Your task to perform on an android device: Search for pizza restaurants on Maps Image 0: 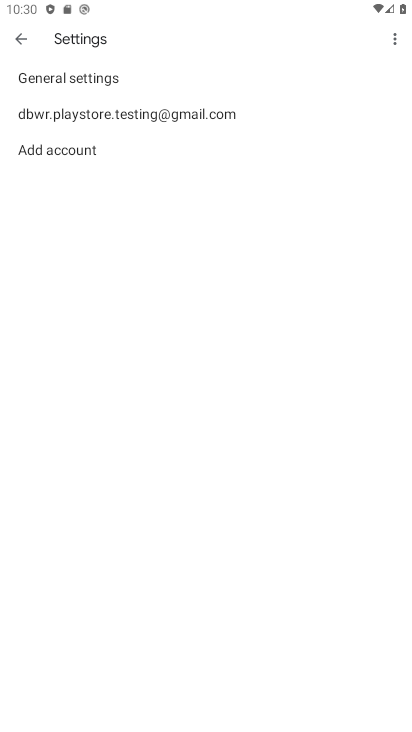
Step 0: press home button
Your task to perform on an android device: Search for pizza restaurants on Maps Image 1: 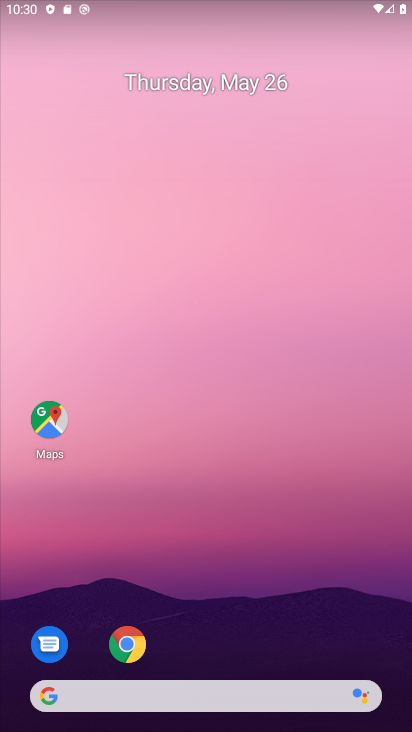
Step 1: click (40, 418)
Your task to perform on an android device: Search for pizza restaurants on Maps Image 2: 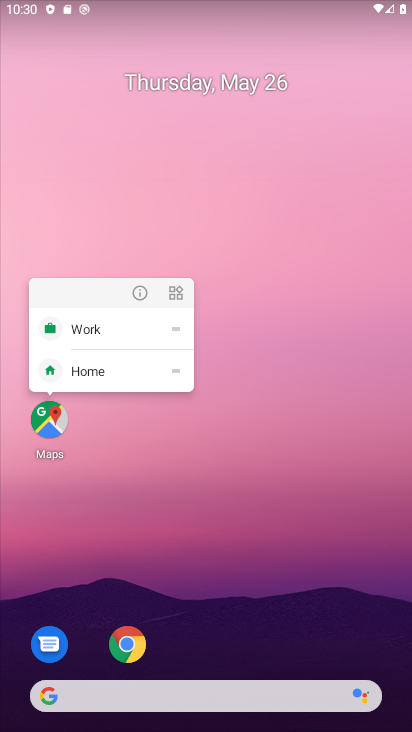
Step 2: click (49, 418)
Your task to perform on an android device: Search for pizza restaurants on Maps Image 3: 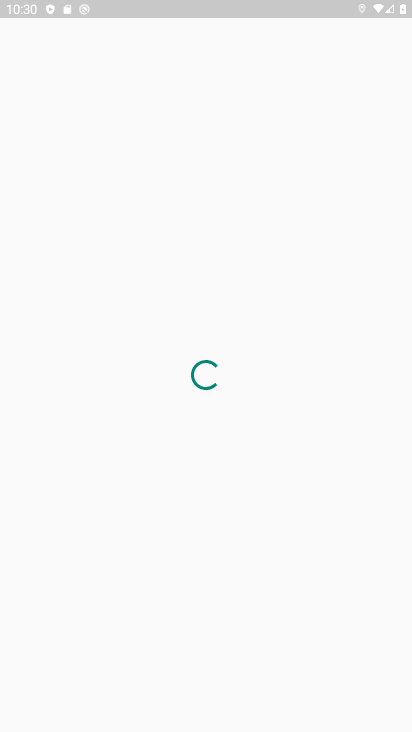
Step 3: click (129, 45)
Your task to perform on an android device: Search for pizza restaurants on Maps Image 4: 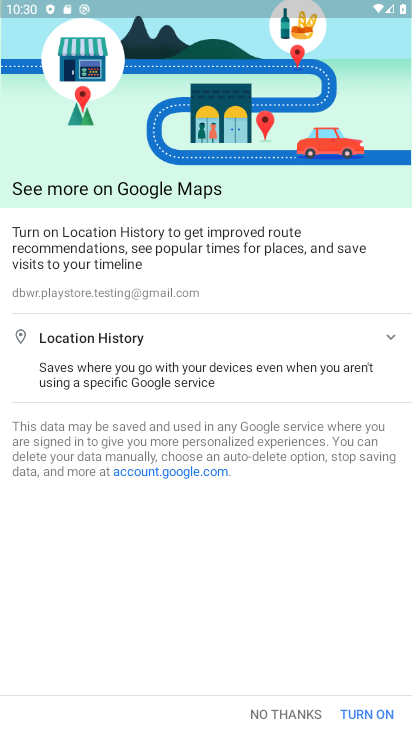
Step 4: click (286, 718)
Your task to perform on an android device: Search for pizza restaurants on Maps Image 5: 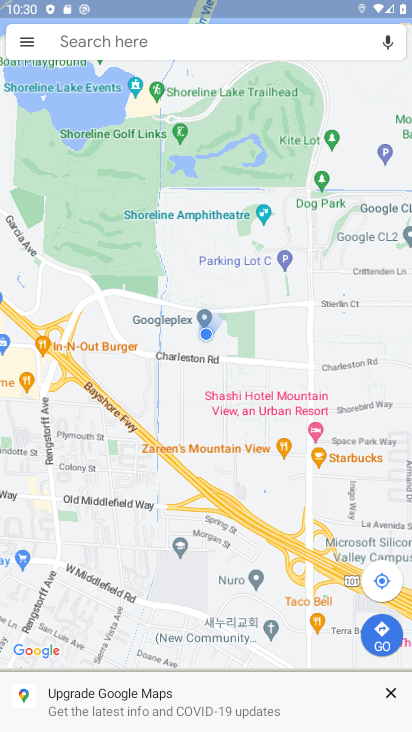
Step 5: click (145, 45)
Your task to perform on an android device: Search for pizza restaurants on Maps Image 6: 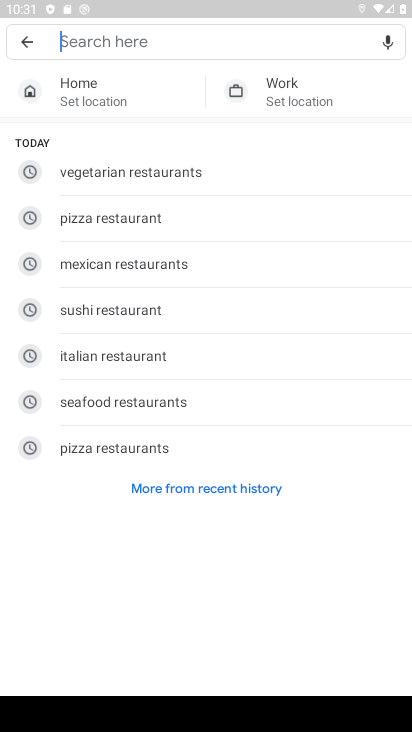
Step 6: type "Pizza restaurants"
Your task to perform on an android device: Search for pizza restaurants on Maps Image 7: 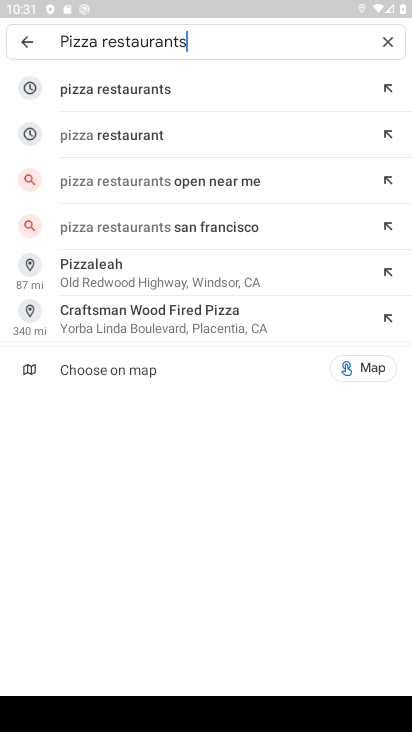
Step 7: click (136, 77)
Your task to perform on an android device: Search for pizza restaurants on Maps Image 8: 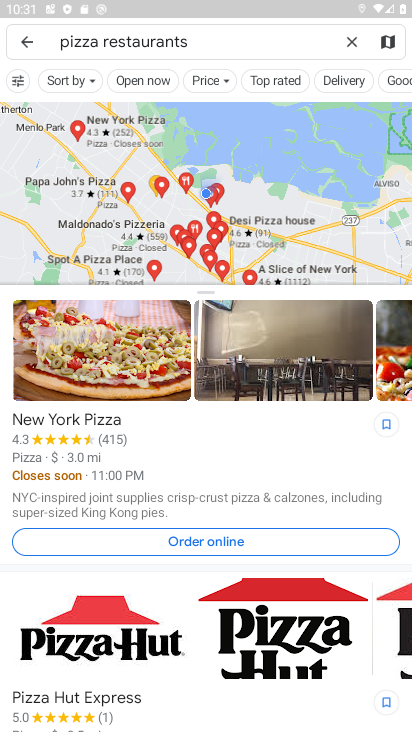
Step 8: task complete